Your task to perform on an android device: open a bookmark in the chrome app Image 0: 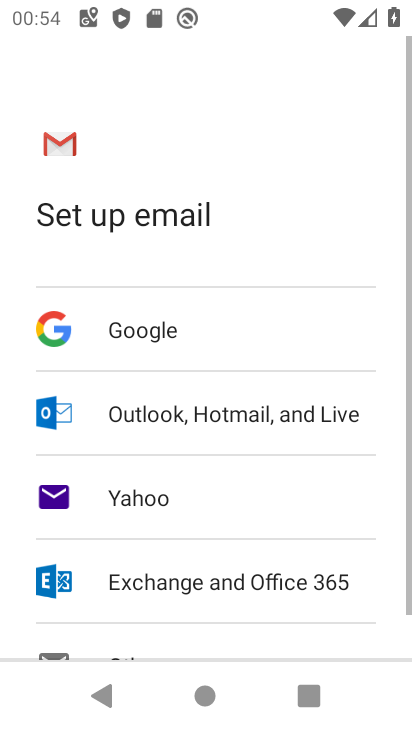
Step 0: press home button
Your task to perform on an android device: open a bookmark in the chrome app Image 1: 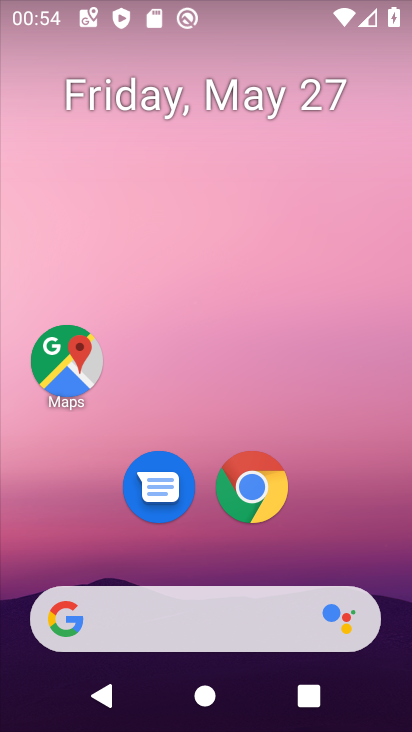
Step 1: click (160, 731)
Your task to perform on an android device: open a bookmark in the chrome app Image 2: 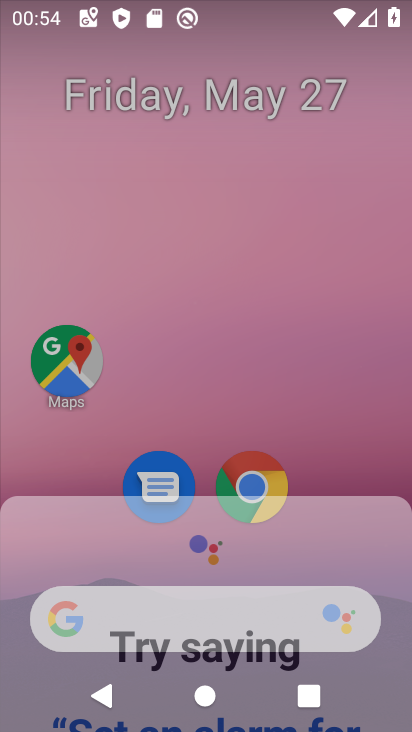
Step 2: click (236, 506)
Your task to perform on an android device: open a bookmark in the chrome app Image 3: 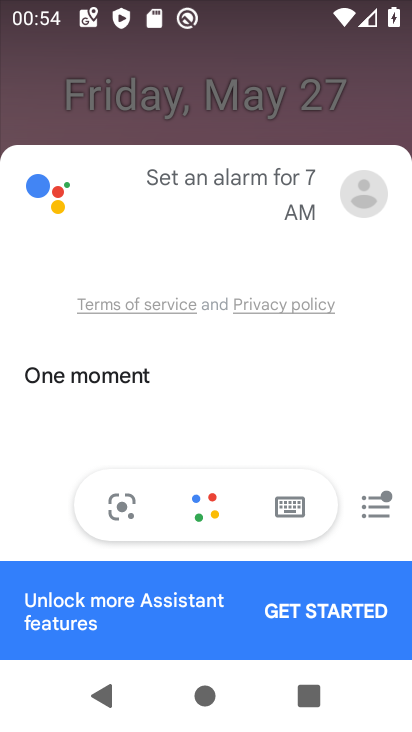
Step 3: press home button
Your task to perform on an android device: open a bookmark in the chrome app Image 4: 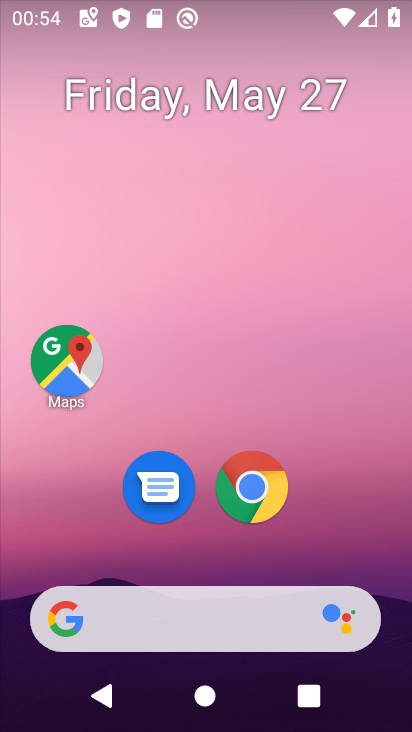
Step 4: click (262, 506)
Your task to perform on an android device: open a bookmark in the chrome app Image 5: 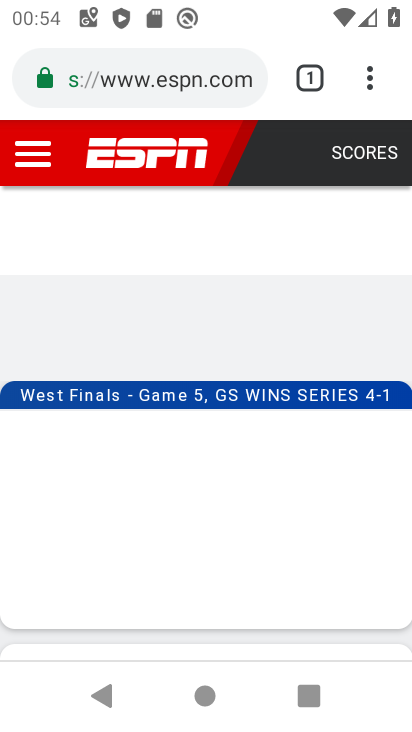
Step 5: click (369, 75)
Your task to perform on an android device: open a bookmark in the chrome app Image 6: 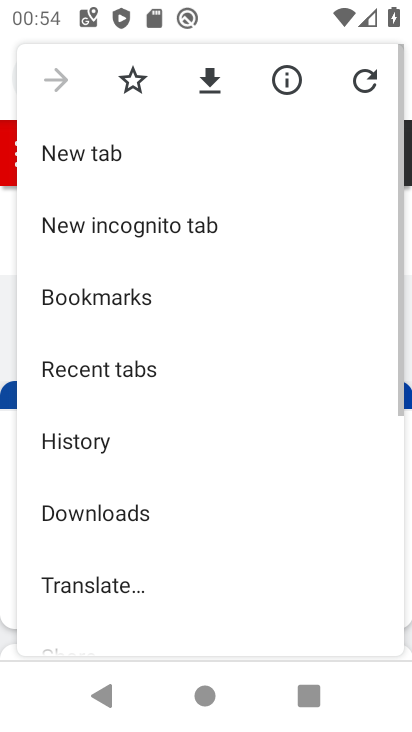
Step 6: click (120, 304)
Your task to perform on an android device: open a bookmark in the chrome app Image 7: 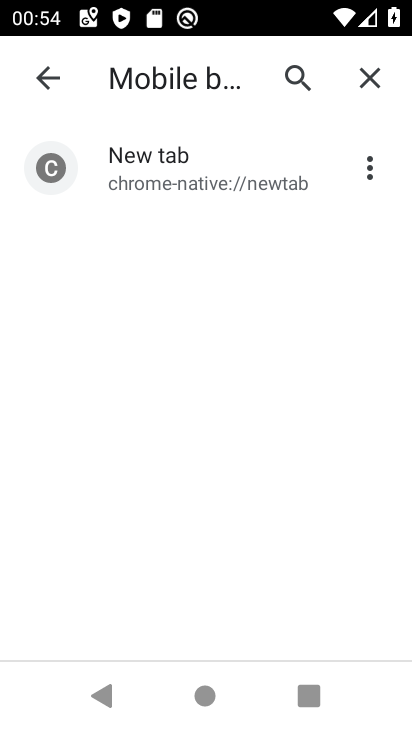
Step 7: click (152, 152)
Your task to perform on an android device: open a bookmark in the chrome app Image 8: 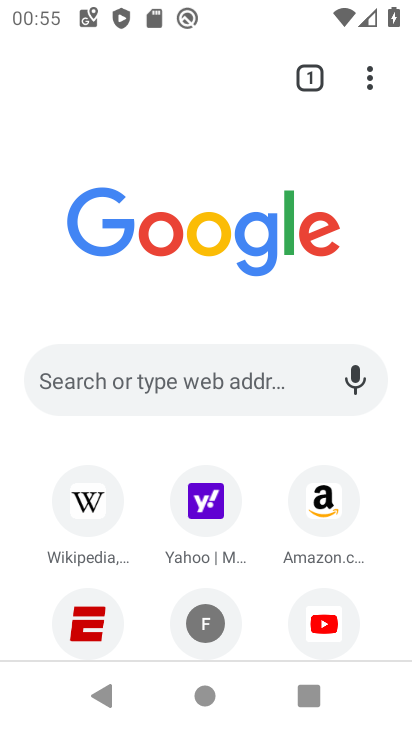
Step 8: task complete